Your task to perform on an android device: What is the news today? Image 0: 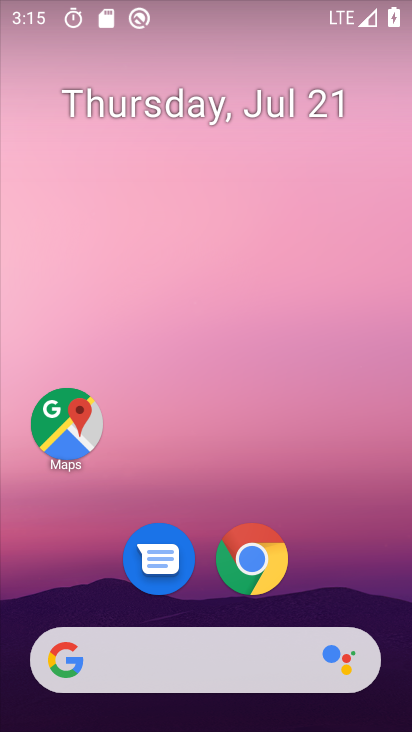
Step 0: drag from (2, 253) to (410, 346)
Your task to perform on an android device: What is the news today? Image 1: 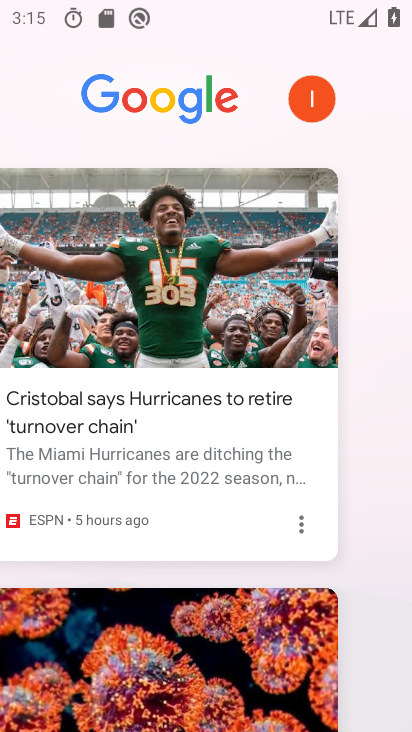
Step 1: task complete